Your task to perform on an android device: Clear the shopping cart on newegg.com. Add "alienware area 51" to the cart on newegg.com Image 0: 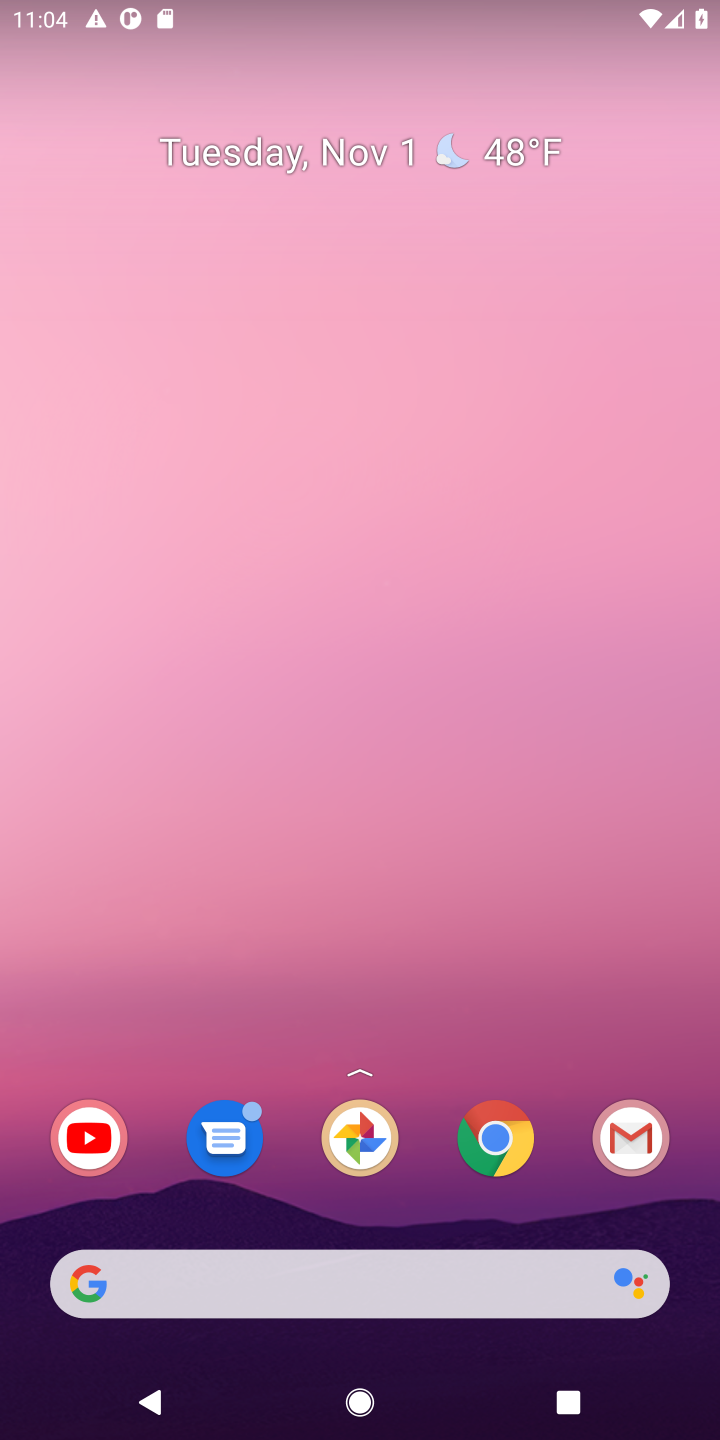
Step 0: drag from (427, 1050) to (433, 65)
Your task to perform on an android device: Clear the shopping cart on newegg.com. Add "alienware area 51" to the cart on newegg.com Image 1: 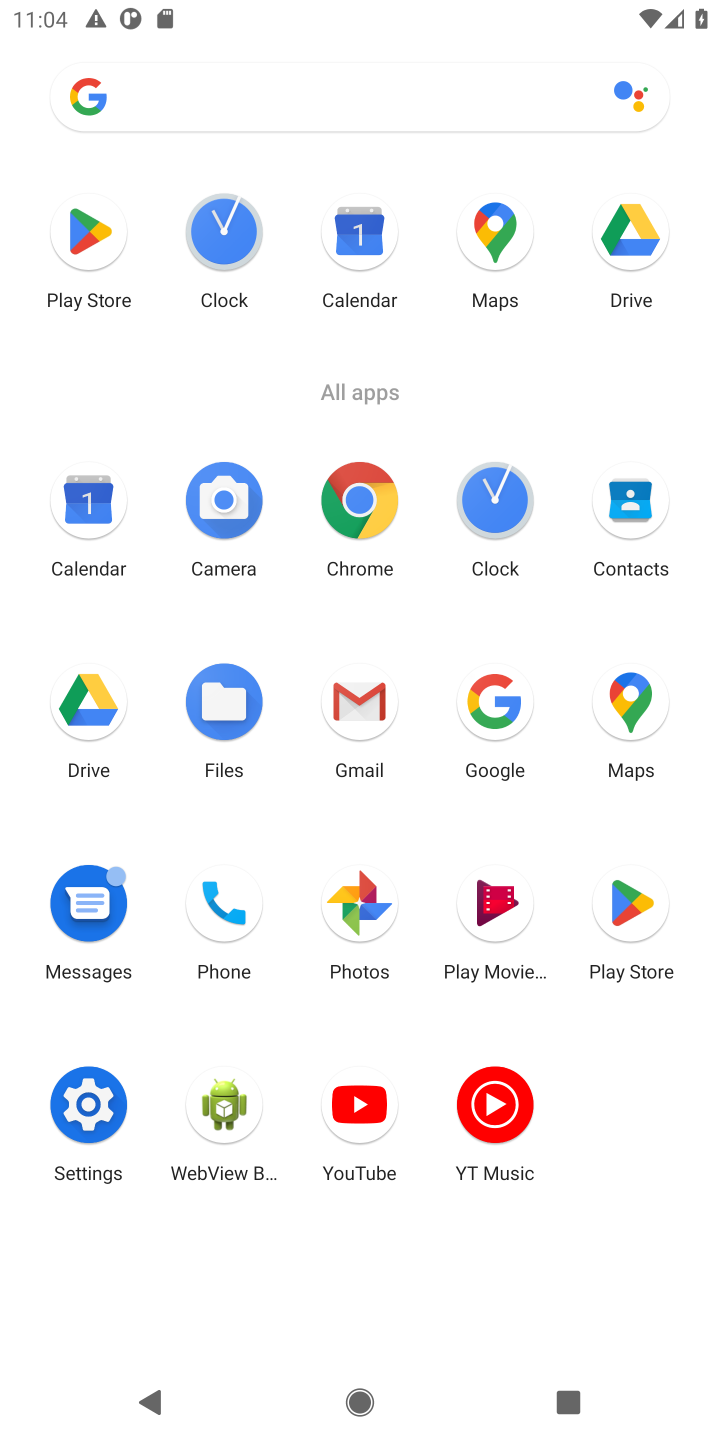
Step 1: click (370, 500)
Your task to perform on an android device: Clear the shopping cart on newegg.com. Add "alienware area 51" to the cart on newegg.com Image 2: 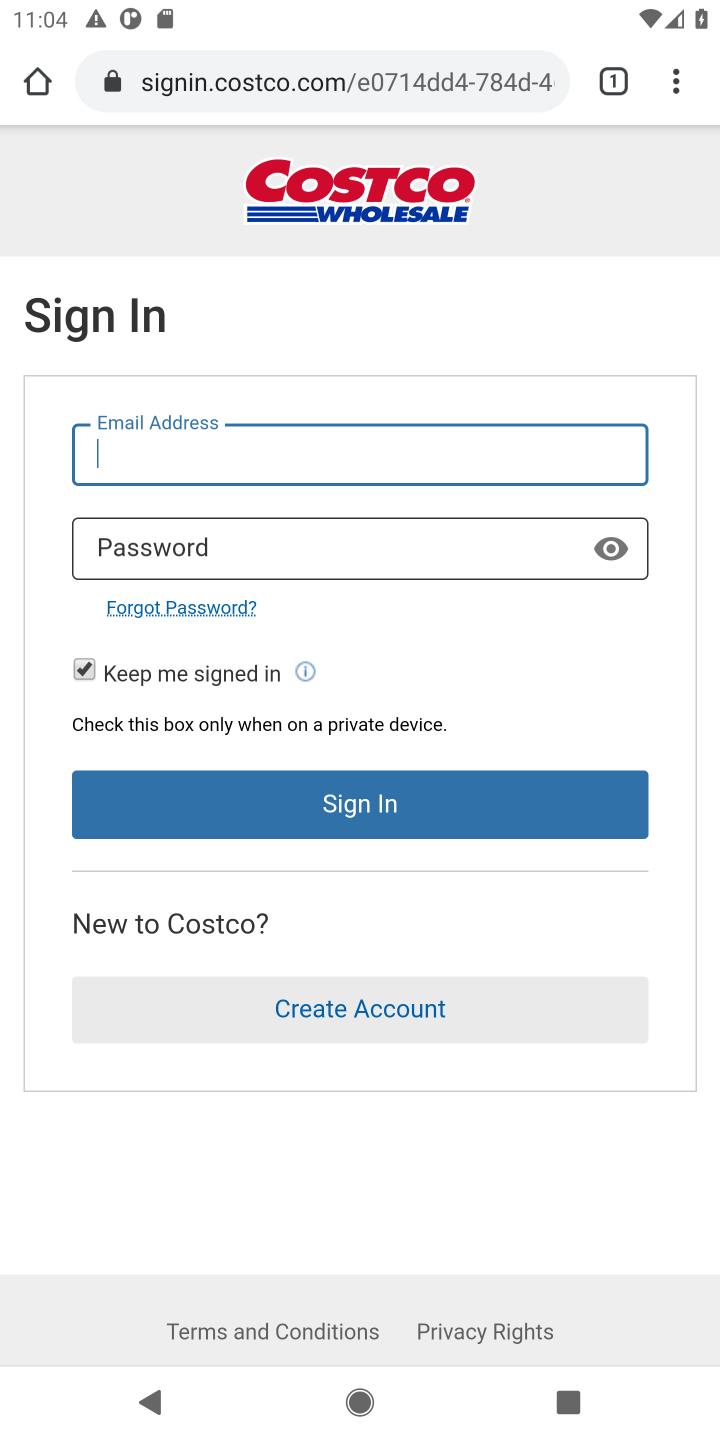
Step 2: click (263, 76)
Your task to perform on an android device: Clear the shopping cart on newegg.com. Add "alienware area 51" to the cart on newegg.com Image 3: 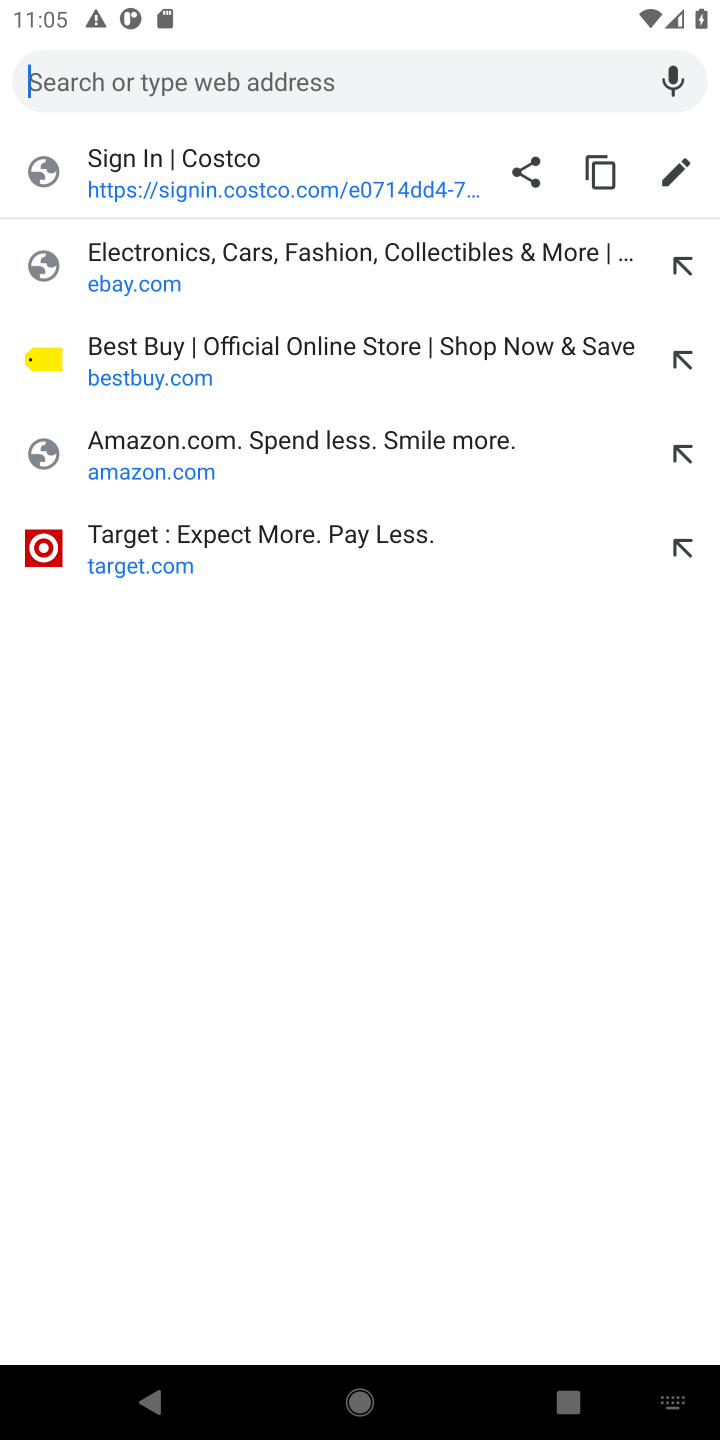
Step 3: type "newegg"
Your task to perform on an android device: Clear the shopping cart on newegg.com. Add "alienware area 51" to the cart on newegg.com Image 4: 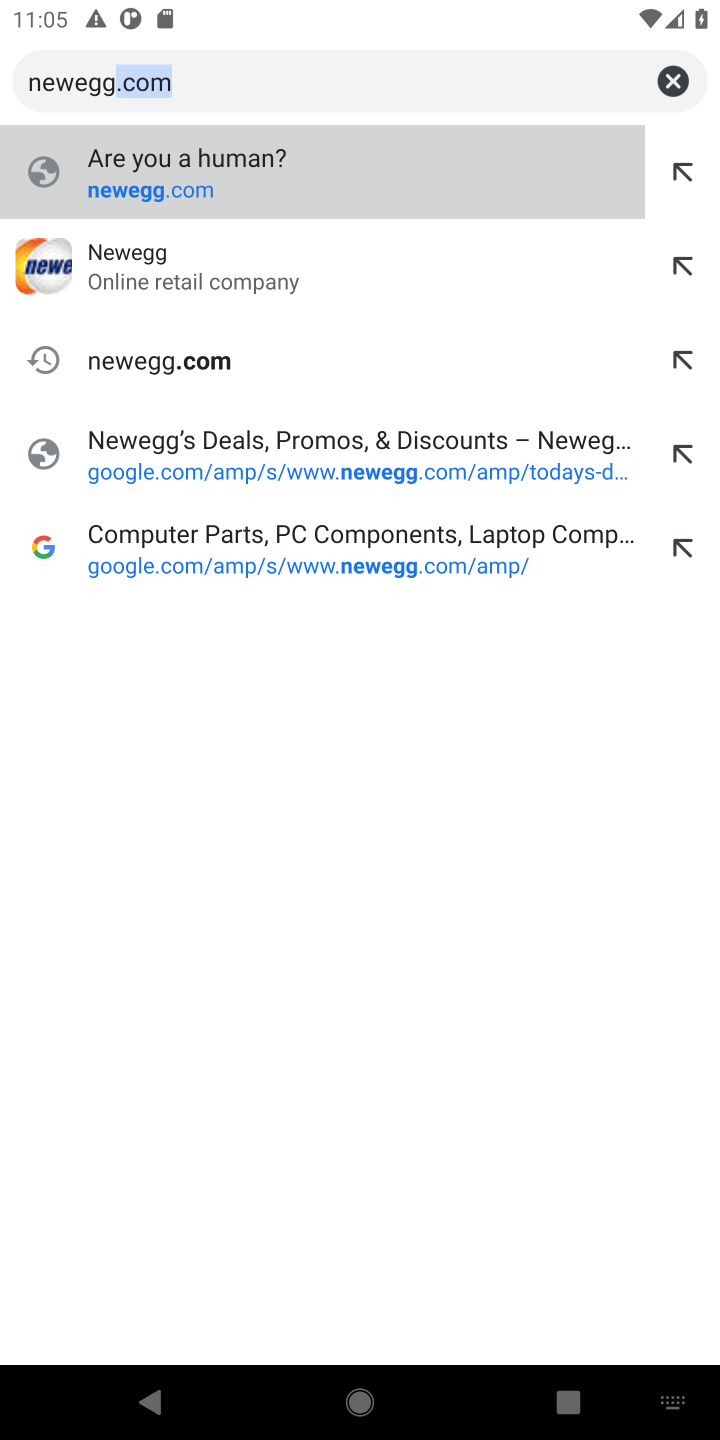
Step 4: type ""
Your task to perform on an android device: Clear the shopping cart on newegg.com. Add "alienware area 51" to the cart on newegg.com Image 5: 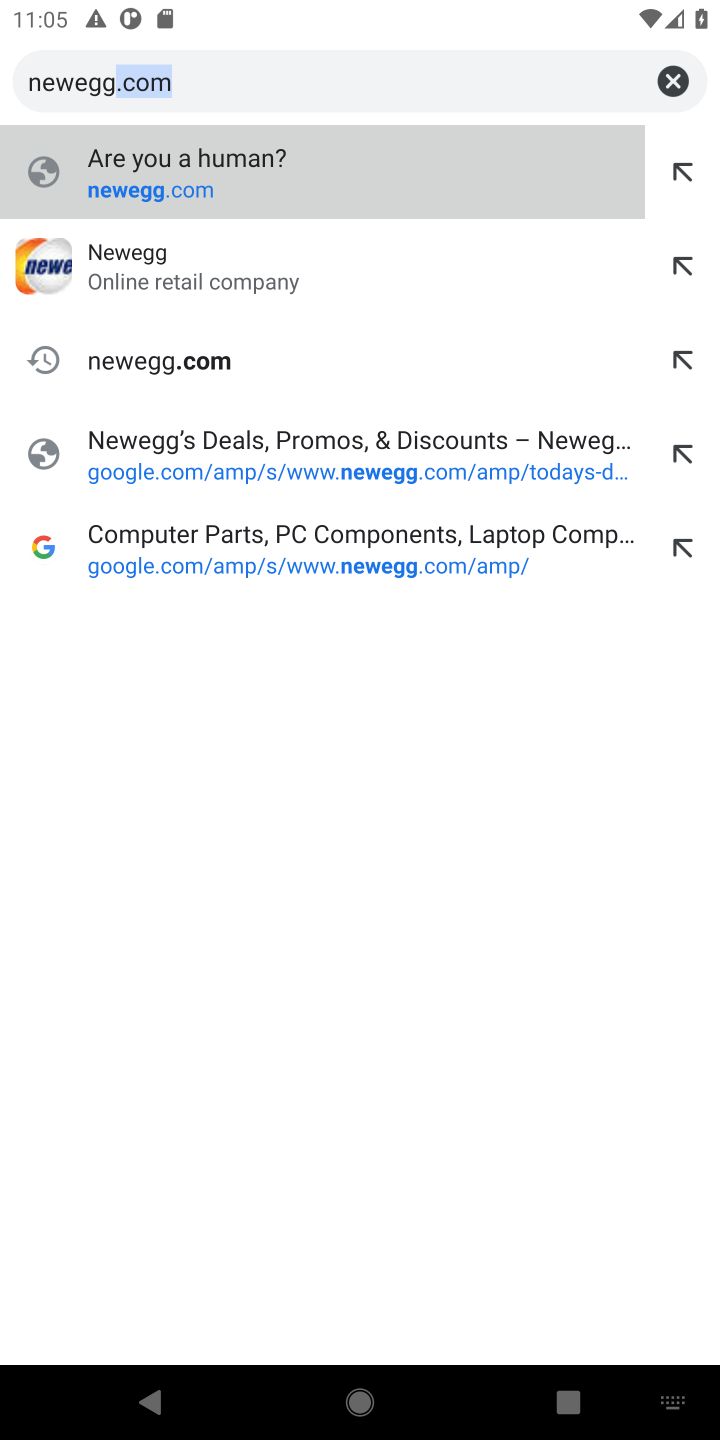
Step 5: click (160, 277)
Your task to perform on an android device: Clear the shopping cart on newegg.com. Add "alienware area 51" to the cart on newegg.com Image 6: 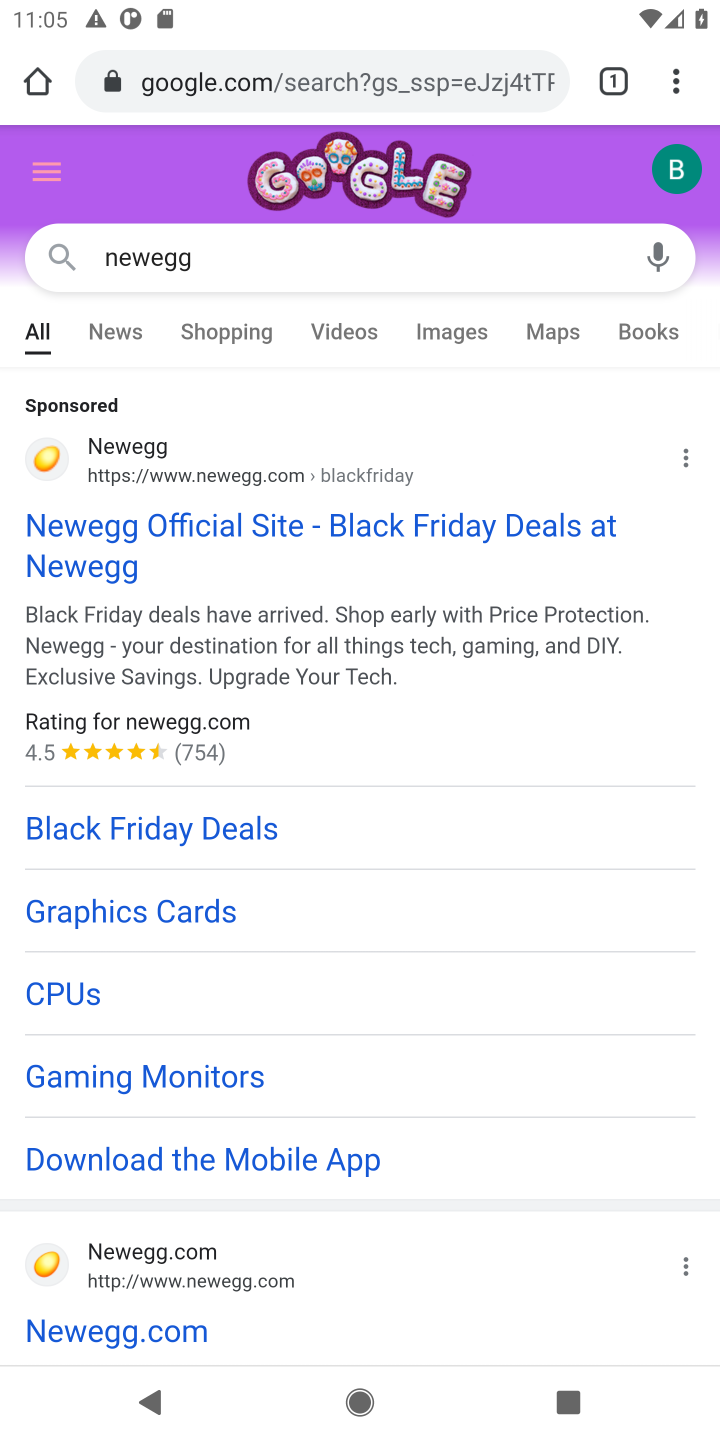
Step 6: click (200, 1326)
Your task to perform on an android device: Clear the shopping cart on newegg.com. Add "alienware area 51" to the cart on newegg.com Image 7: 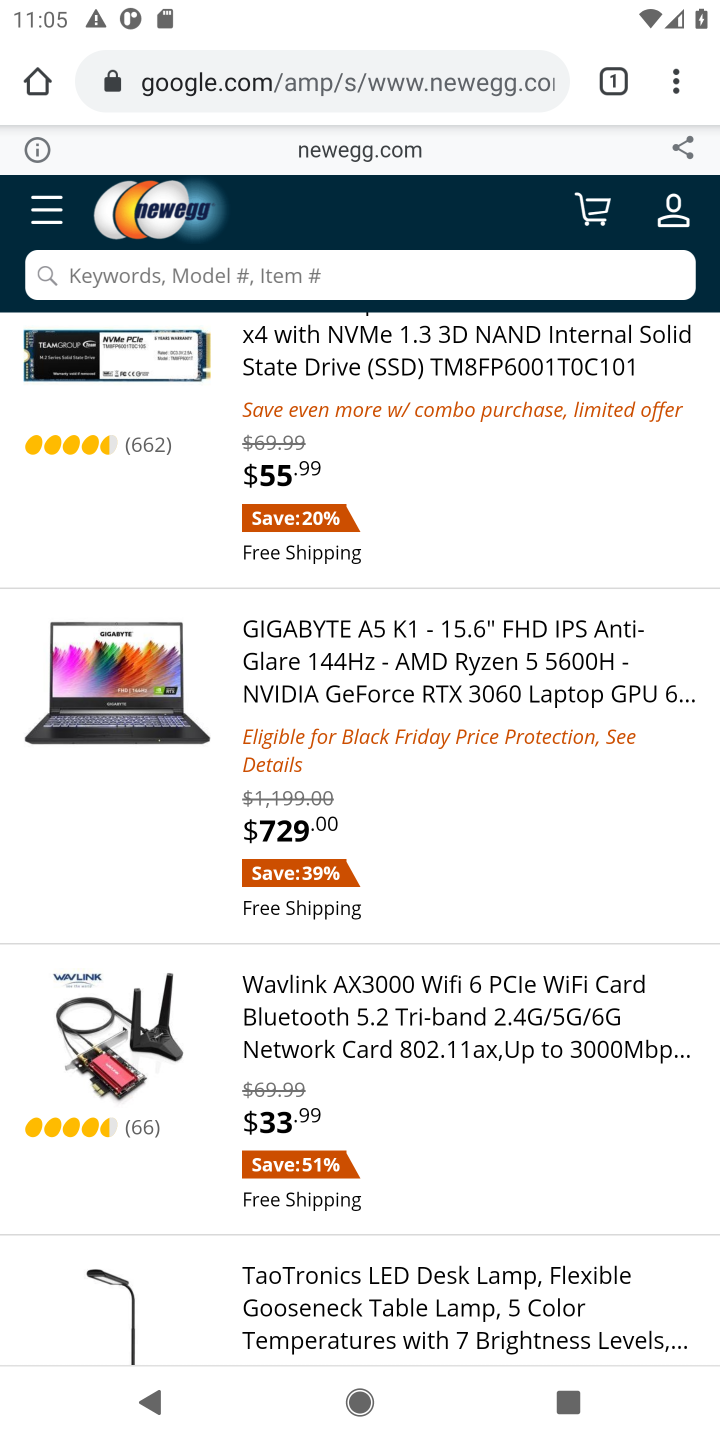
Step 7: click (170, 280)
Your task to perform on an android device: Clear the shopping cart on newegg.com. Add "alienware area 51" to the cart on newegg.com Image 8: 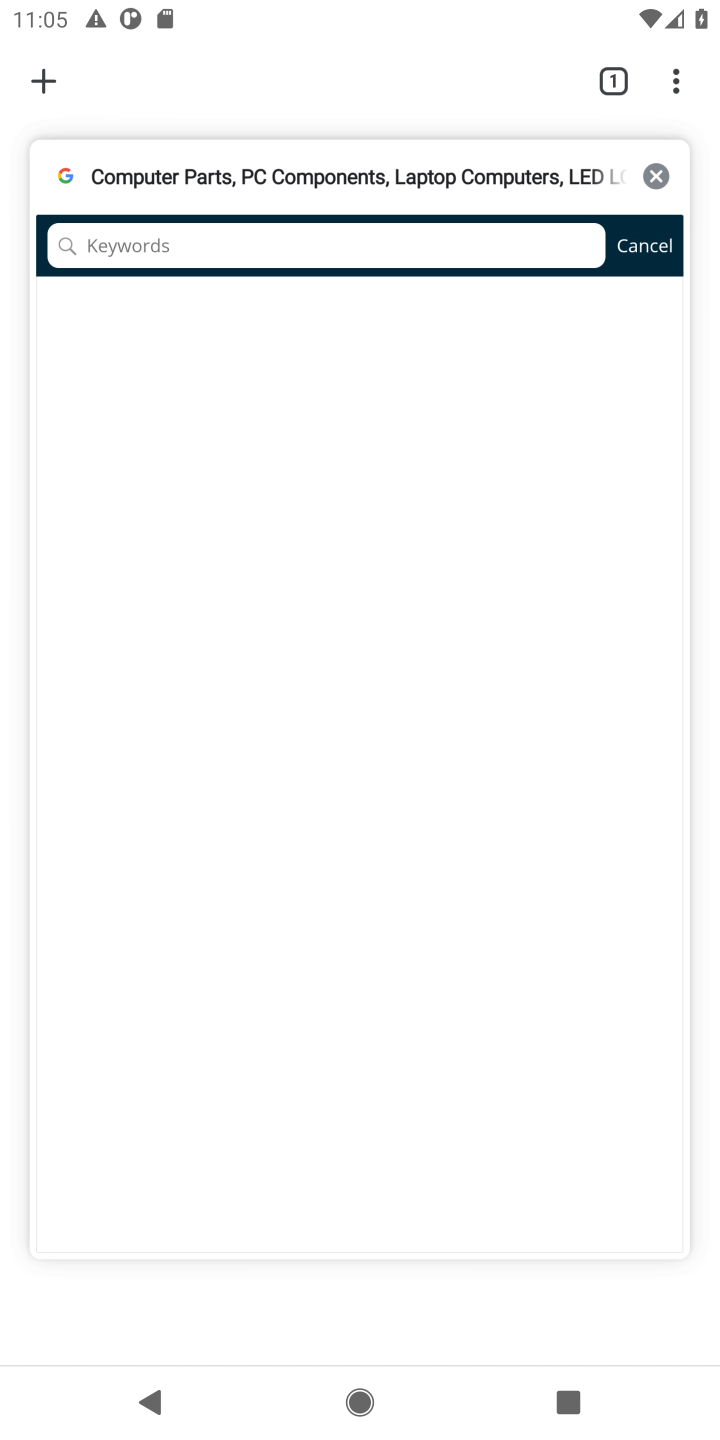
Step 8: click (181, 273)
Your task to perform on an android device: Clear the shopping cart on newegg.com. Add "alienware area 51" to the cart on newegg.com Image 9: 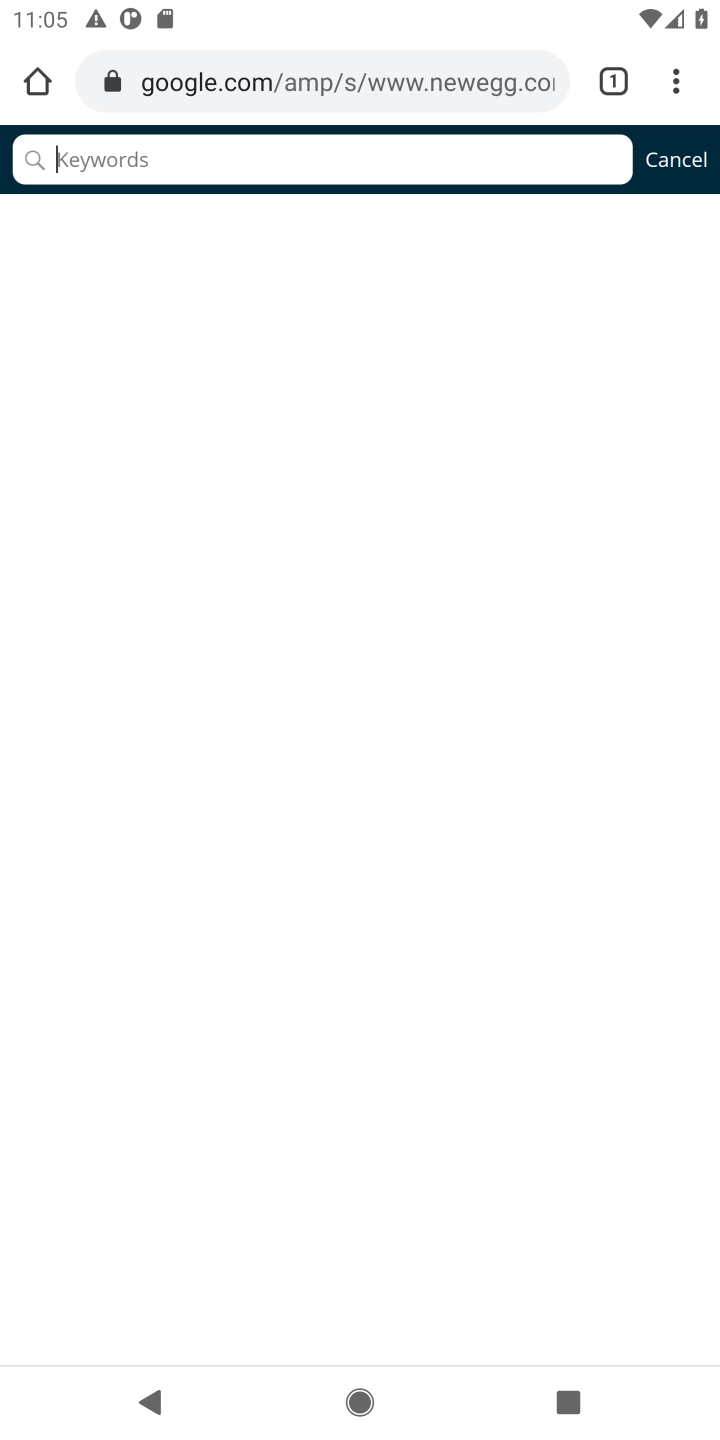
Step 9: type "alienware area 51"
Your task to perform on an android device: Clear the shopping cart on newegg.com. Add "alienware area 51" to the cart on newegg.com Image 10: 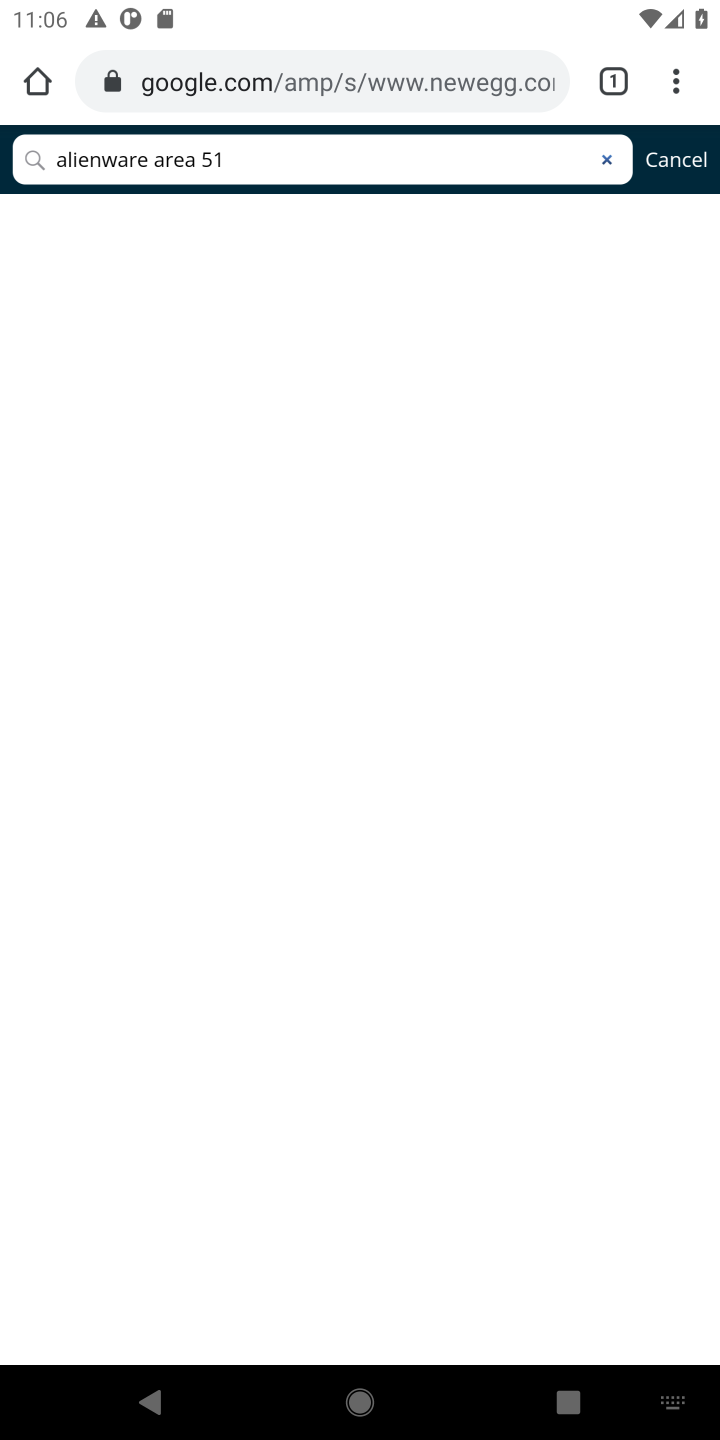
Step 10: task complete